Your task to perform on an android device: What's the weather going to be this weekend? Image 0: 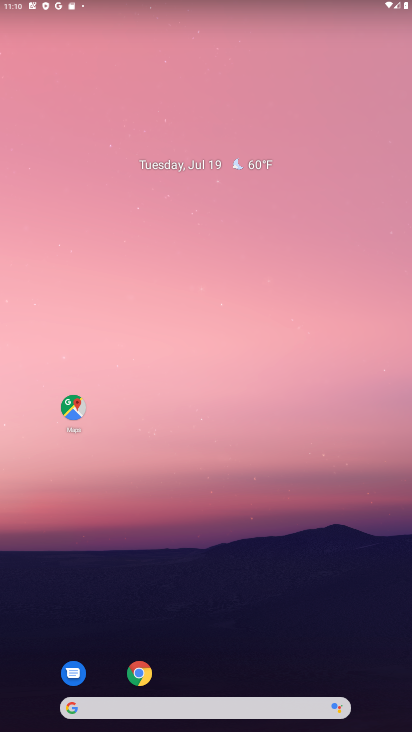
Step 0: click (258, 166)
Your task to perform on an android device: What's the weather going to be this weekend? Image 1: 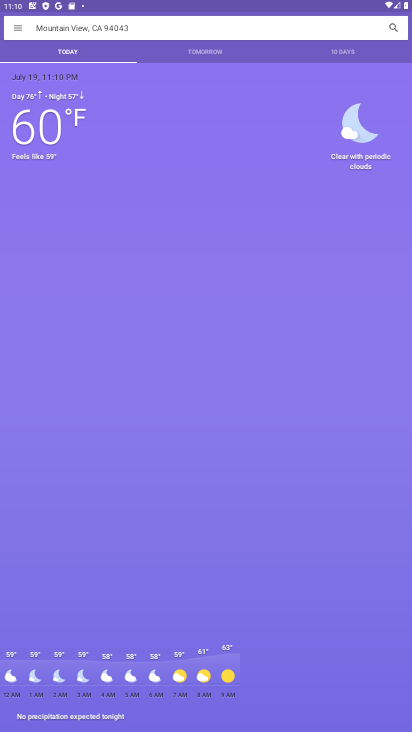
Step 1: click (337, 53)
Your task to perform on an android device: What's the weather going to be this weekend? Image 2: 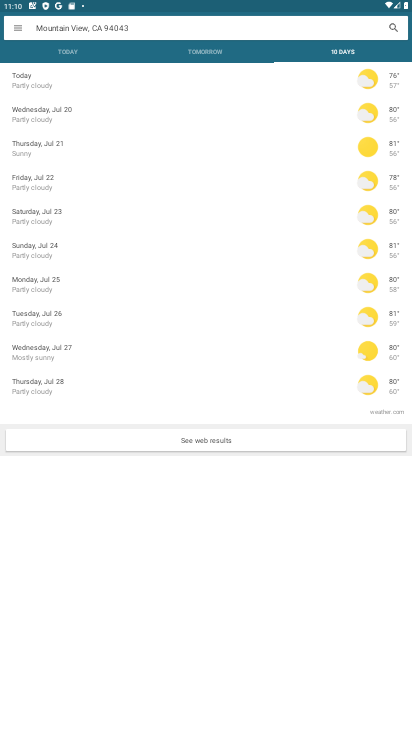
Step 2: task complete